Your task to perform on an android device: Open Google Image 0: 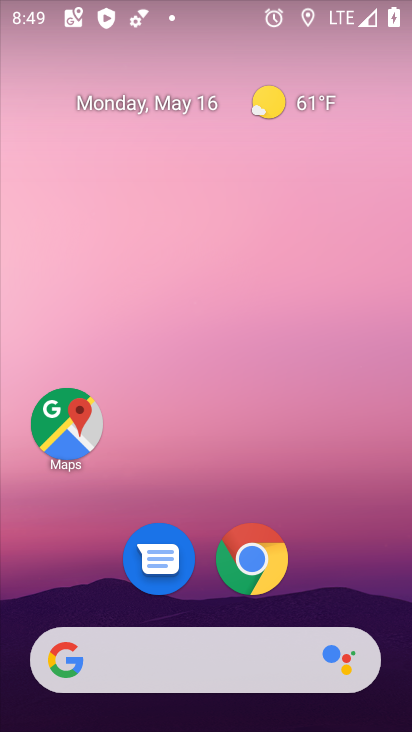
Step 0: press home button
Your task to perform on an android device: Open Google Image 1: 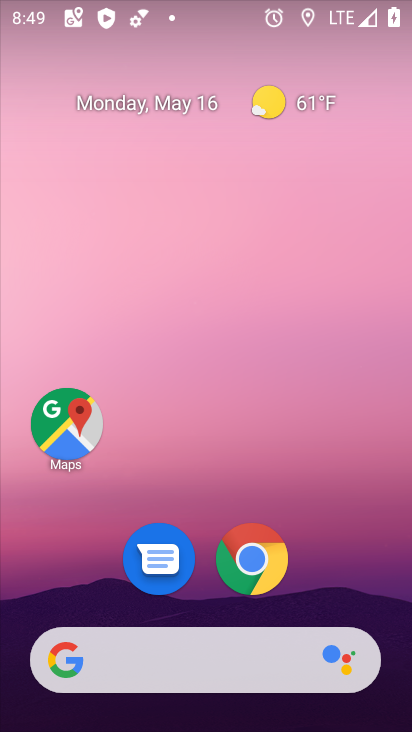
Step 1: drag from (354, 532) to (380, 114)
Your task to perform on an android device: Open Google Image 2: 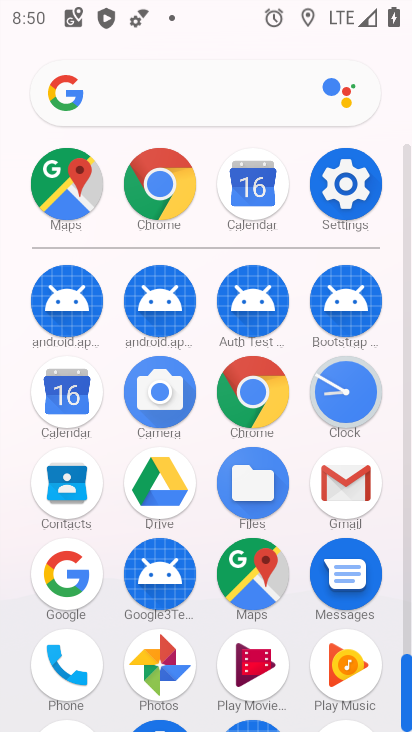
Step 2: click (78, 590)
Your task to perform on an android device: Open Google Image 3: 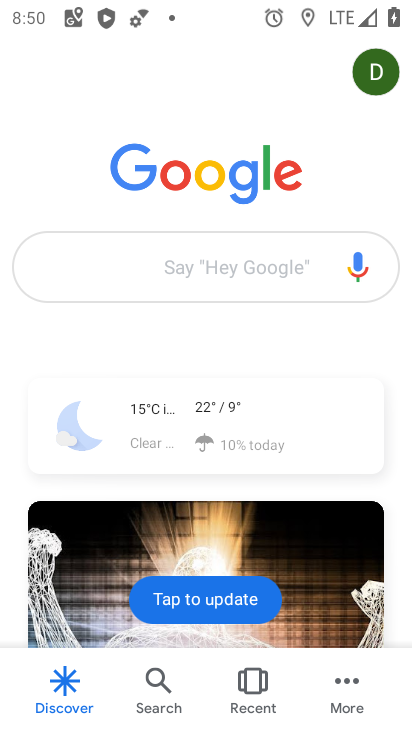
Step 3: task complete